Your task to perform on an android device: turn on showing notifications on the lock screen Image 0: 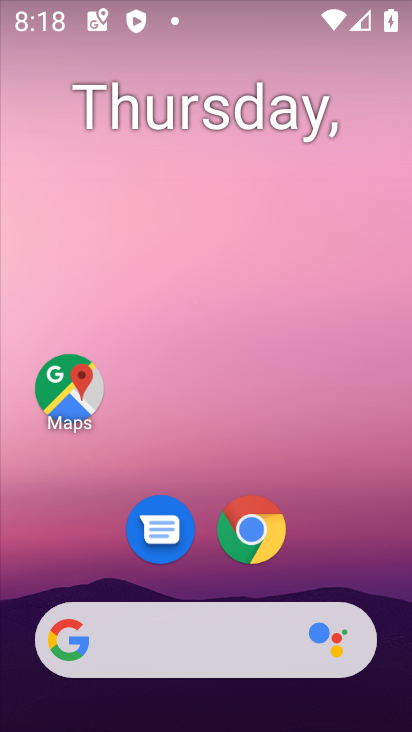
Step 0: click (348, 657)
Your task to perform on an android device: turn on showing notifications on the lock screen Image 1: 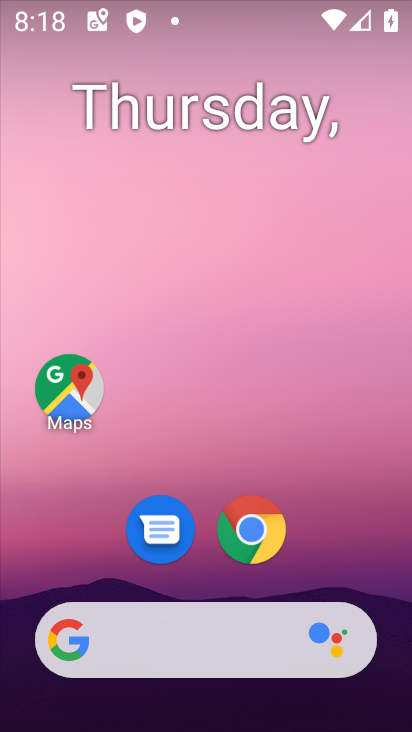
Step 1: press home button
Your task to perform on an android device: turn on showing notifications on the lock screen Image 2: 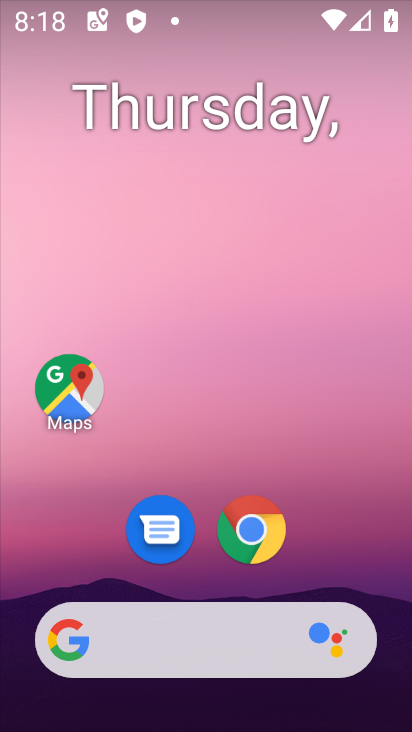
Step 2: drag from (188, 632) to (317, 172)
Your task to perform on an android device: turn on showing notifications on the lock screen Image 3: 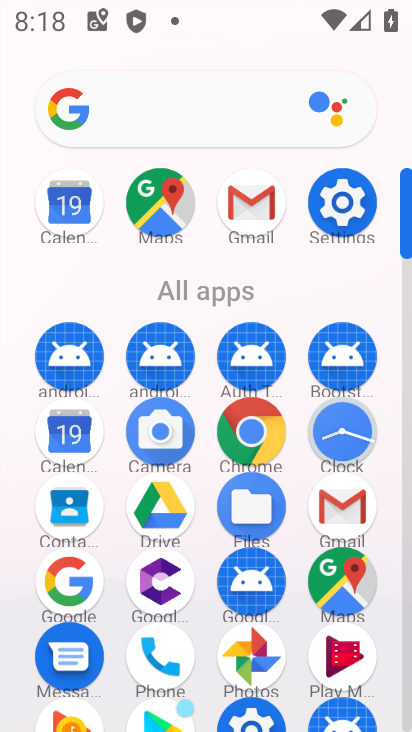
Step 3: click (338, 205)
Your task to perform on an android device: turn on showing notifications on the lock screen Image 4: 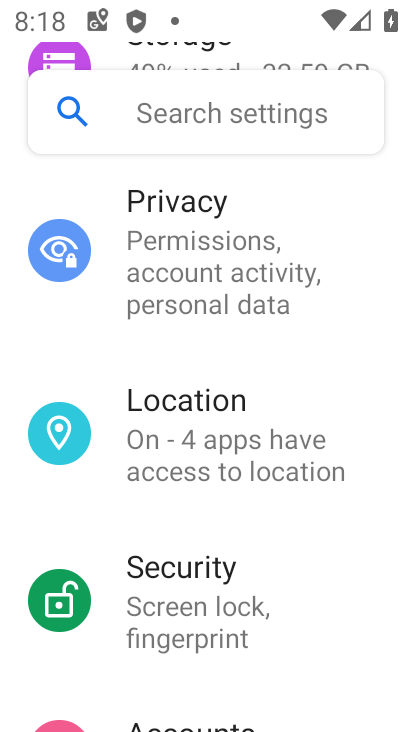
Step 4: drag from (324, 208) to (301, 611)
Your task to perform on an android device: turn on showing notifications on the lock screen Image 5: 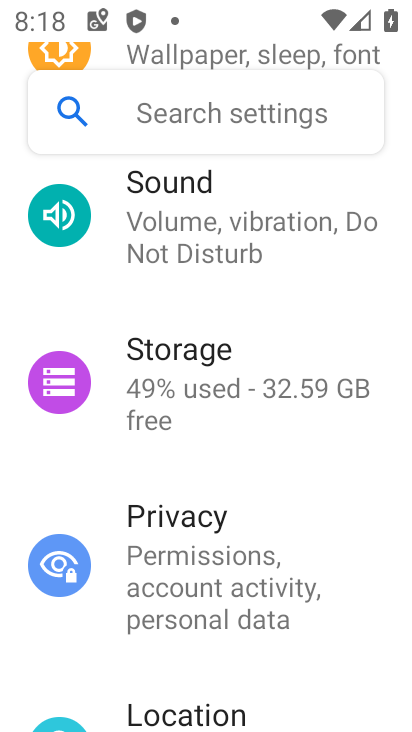
Step 5: drag from (333, 273) to (291, 603)
Your task to perform on an android device: turn on showing notifications on the lock screen Image 6: 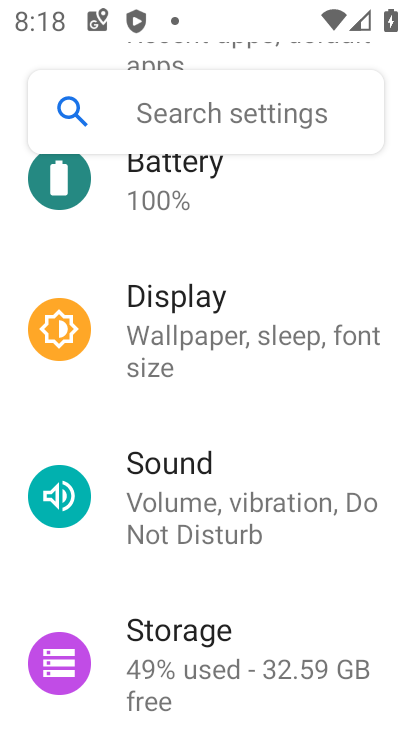
Step 6: drag from (297, 201) to (310, 627)
Your task to perform on an android device: turn on showing notifications on the lock screen Image 7: 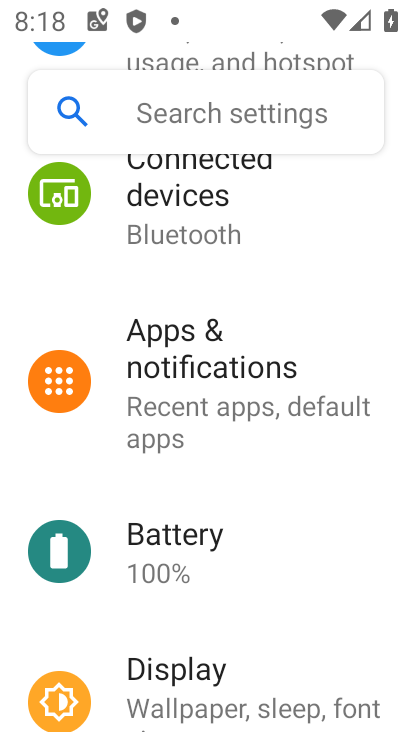
Step 7: click (220, 363)
Your task to perform on an android device: turn on showing notifications on the lock screen Image 8: 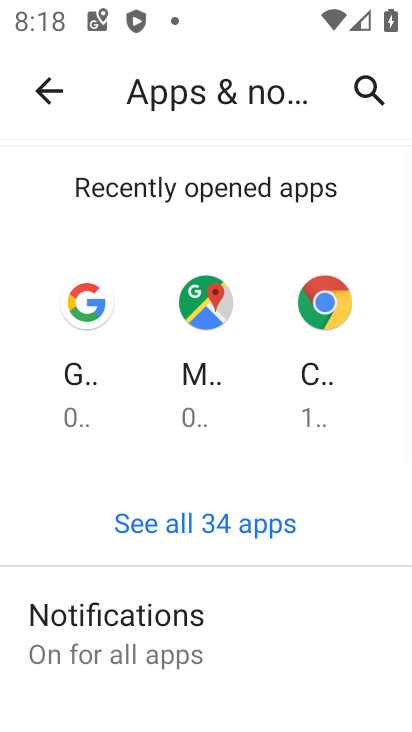
Step 8: click (127, 606)
Your task to perform on an android device: turn on showing notifications on the lock screen Image 9: 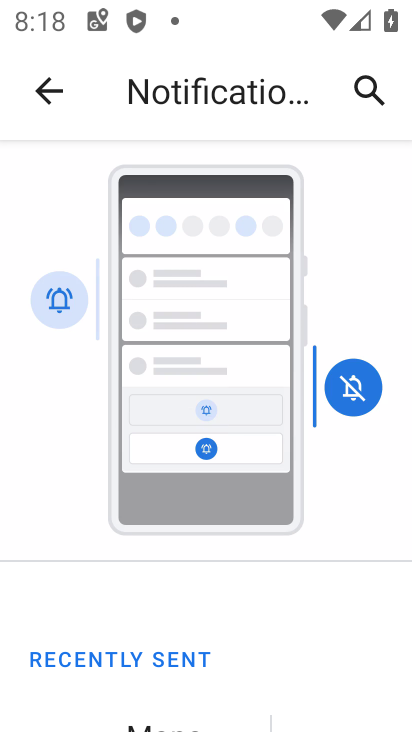
Step 9: drag from (212, 637) to (324, 280)
Your task to perform on an android device: turn on showing notifications on the lock screen Image 10: 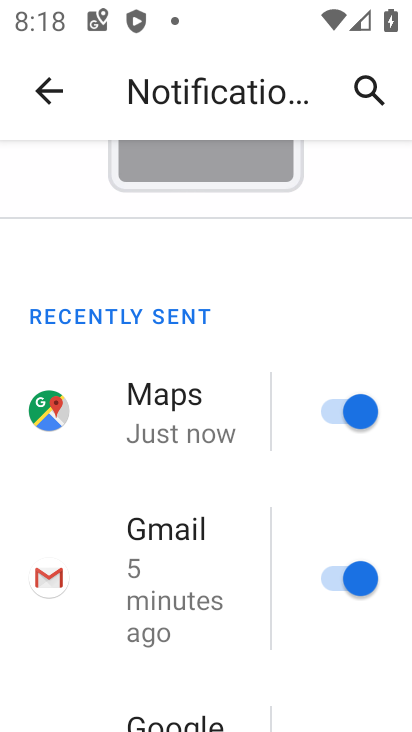
Step 10: drag from (256, 649) to (409, 82)
Your task to perform on an android device: turn on showing notifications on the lock screen Image 11: 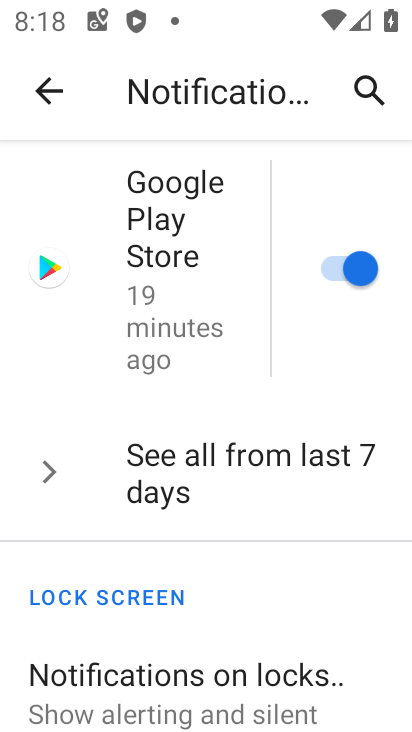
Step 11: drag from (224, 582) to (321, 223)
Your task to perform on an android device: turn on showing notifications on the lock screen Image 12: 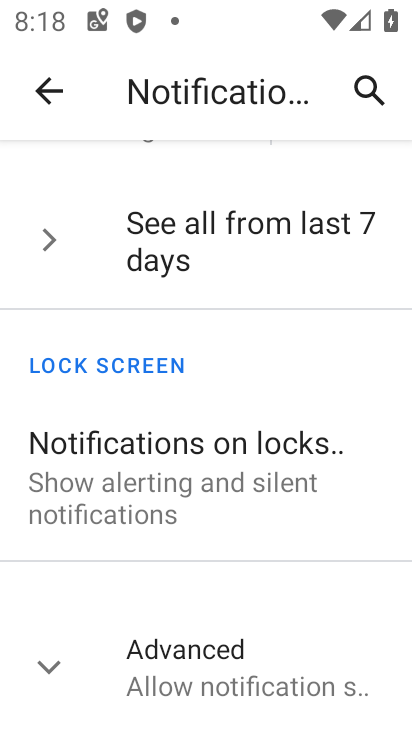
Step 12: click (203, 447)
Your task to perform on an android device: turn on showing notifications on the lock screen Image 13: 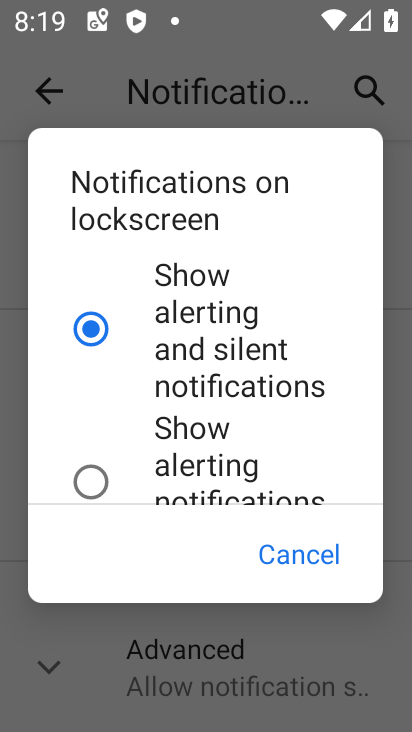
Step 13: task complete